Your task to perform on an android device: toggle wifi Image 0: 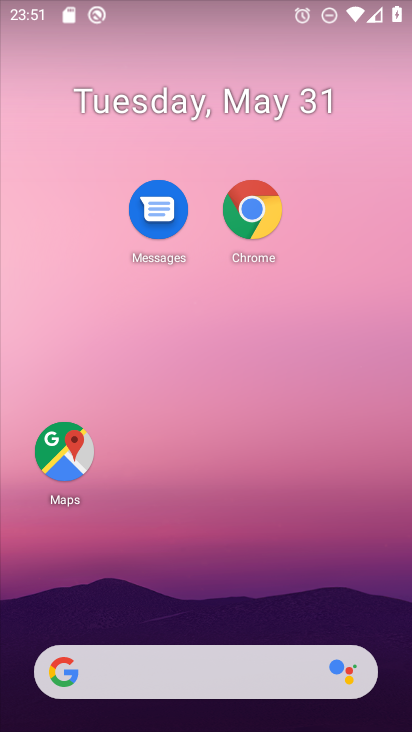
Step 0: press home button
Your task to perform on an android device: toggle wifi Image 1: 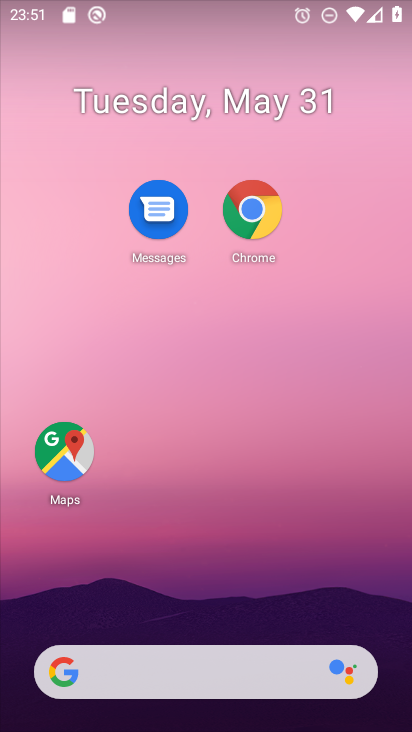
Step 1: drag from (171, 7) to (200, 456)
Your task to perform on an android device: toggle wifi Image 2: 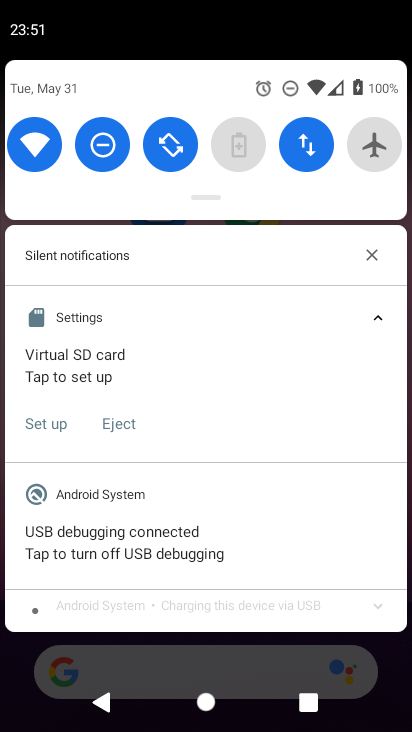
Step 2: click (34, 143)
Your task to perform on an android device: toggle wifi Image 3: 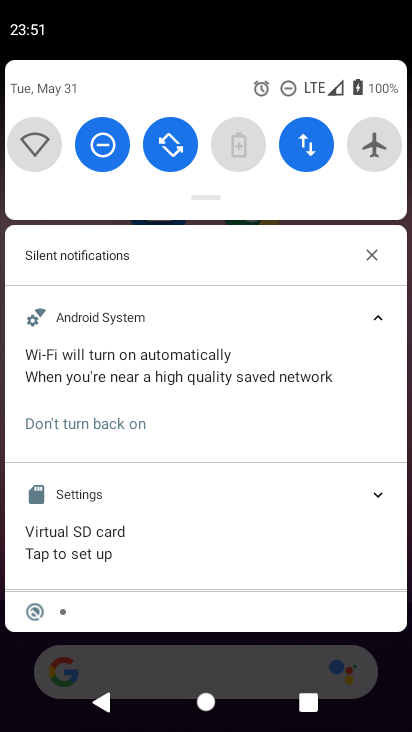
Step 3: task complete